Your task to perform on an android device: manage bookmarks in the chrome app Image 0: 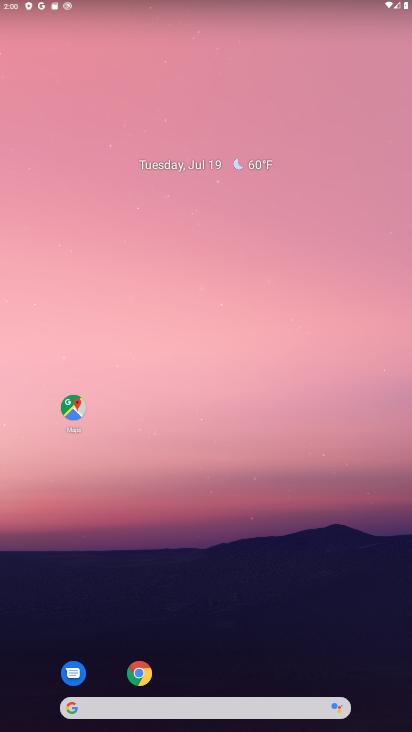
Step 0: drag from (358, 601) to (317, 47)
Your task to perform on an android device: manage bookmarks in the chrome app Image 1: 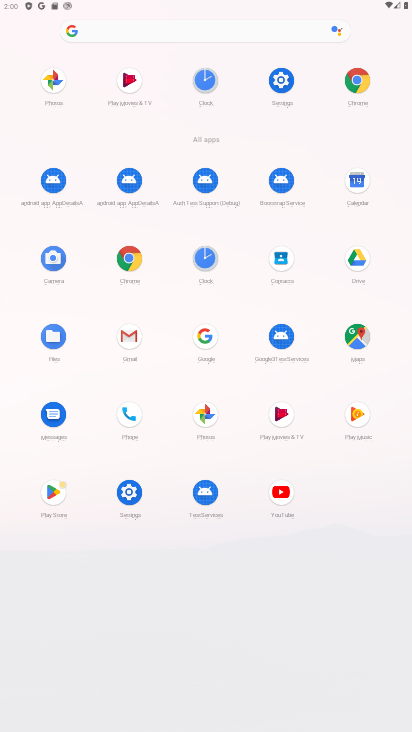
Step 1: click (355, 82)
Your task to perform on an android device: manage bookmarks in the chrome app Image 2: 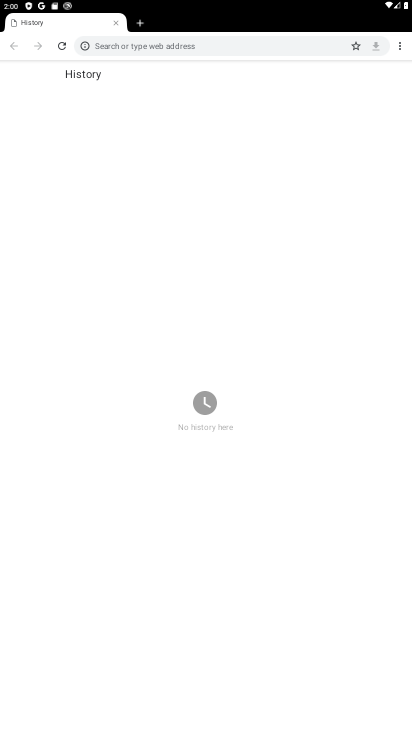
Step 2: click (403, 49)
Your task to perform on an android device: manage bookmarks in the chrome app Image 3: 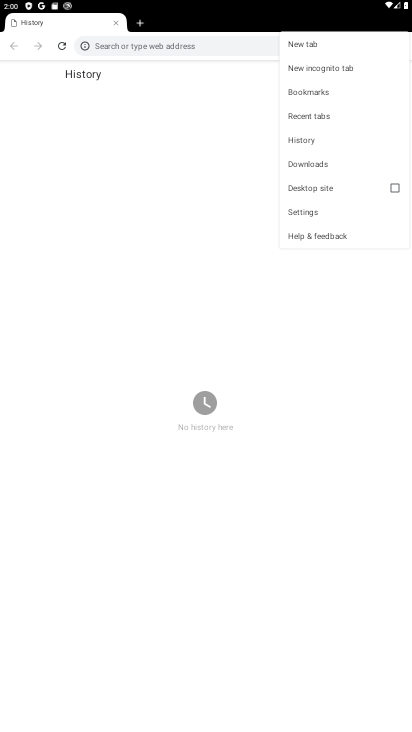
Step 3: click (340, 89)
Your task to perform on an android device: manage bookmarks in the chrome app Image 4: 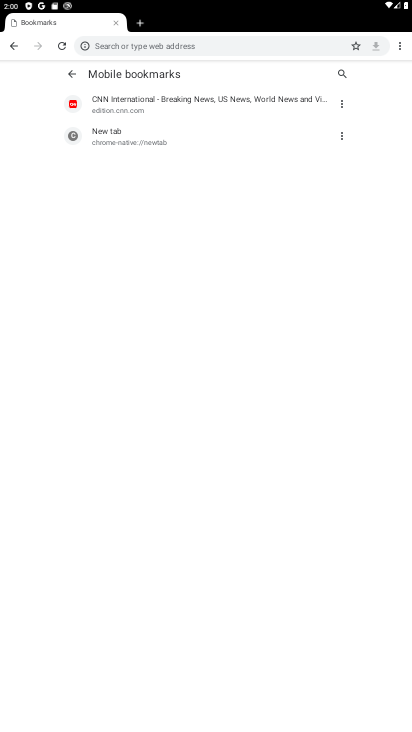
Step 4: click (210, 105)
Your task to perform on an android device: manage bookmarks in the chrome app Image 5: 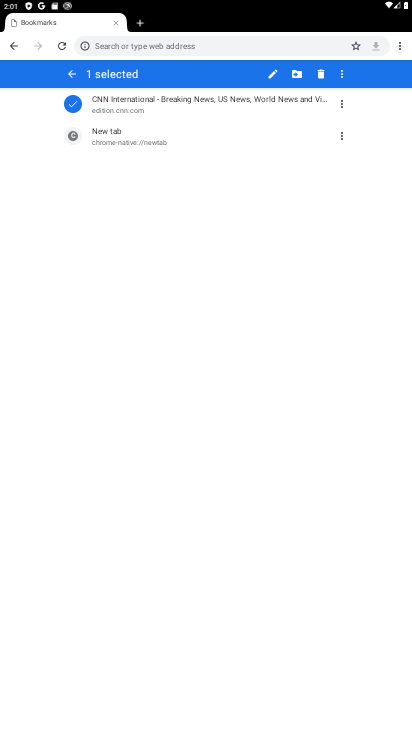
Step 5: click (300, 73)
Your task to perform on an android device: manage bookmarks in the chrome app Image 6: 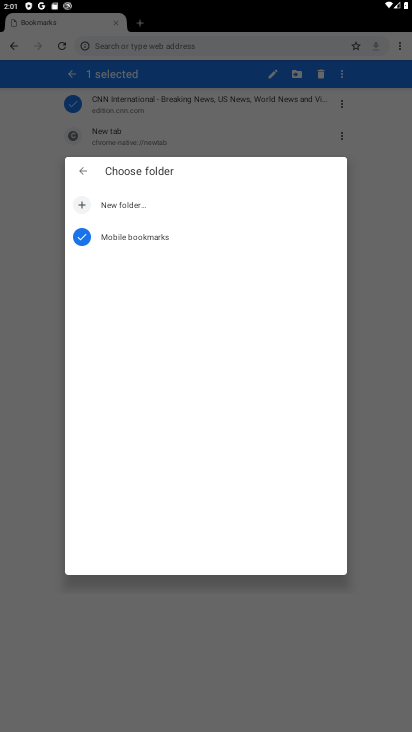
Step 6: click (222, 236)
Your task to perform on an android device: manage bookmarks in the chrome app Image 7: 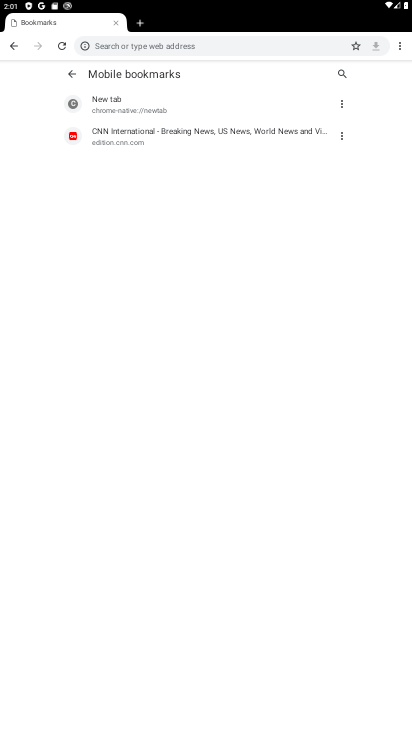
Step 7: task complete